Your task to perform on an android device: Search for sushi restaurants on Maps Image 0: 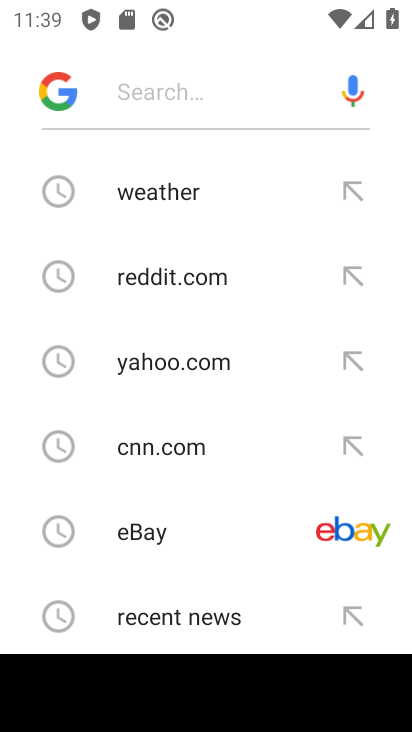
Step 0: press home button
Your task to perform on an android device: Search for sushi restaurants on Maps Image 1: 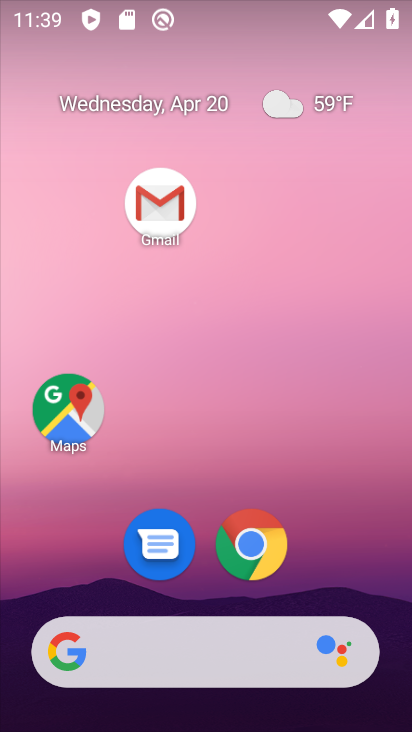
Step 1: click (73, 406)
Your task to perform on an android device: Search for sushi restaurants on Maps Image 2: 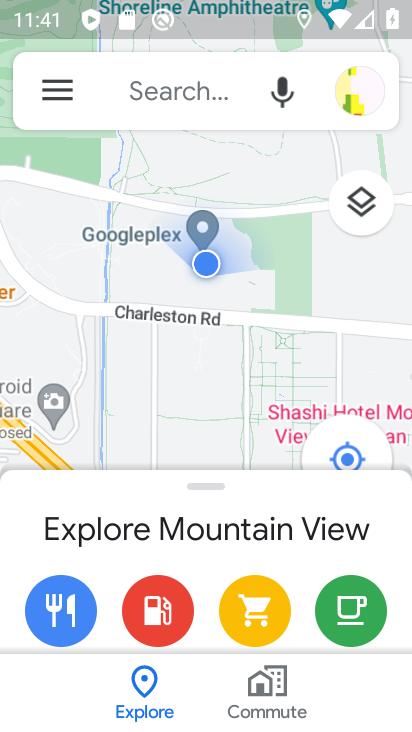
Step 2: click (163, 87)
Your task to perform on an android device: Search for sushi restaurants on Maps Image 3: 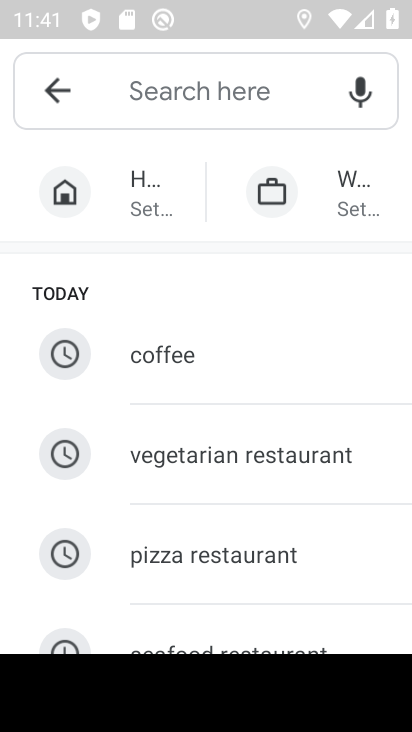
Step 3: type "sushi restaurants"
Your task to perform on an android device: Search for sushi restaurants on Maps Image 4: 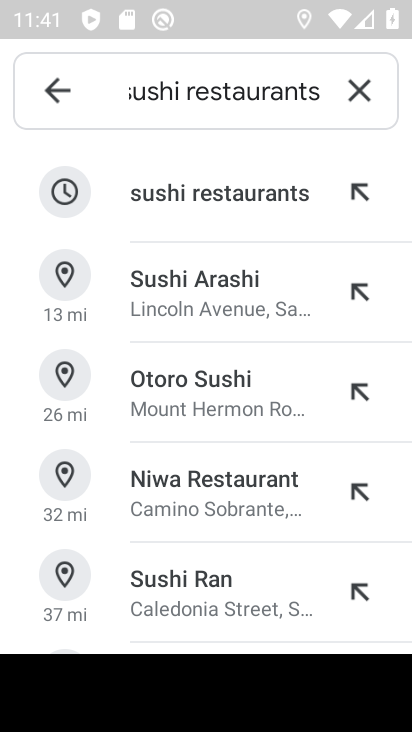
Step 4: task complete